Your task to perform on an android device: open app "Duolingo: language lessons" (install if not already installed) Image 0: 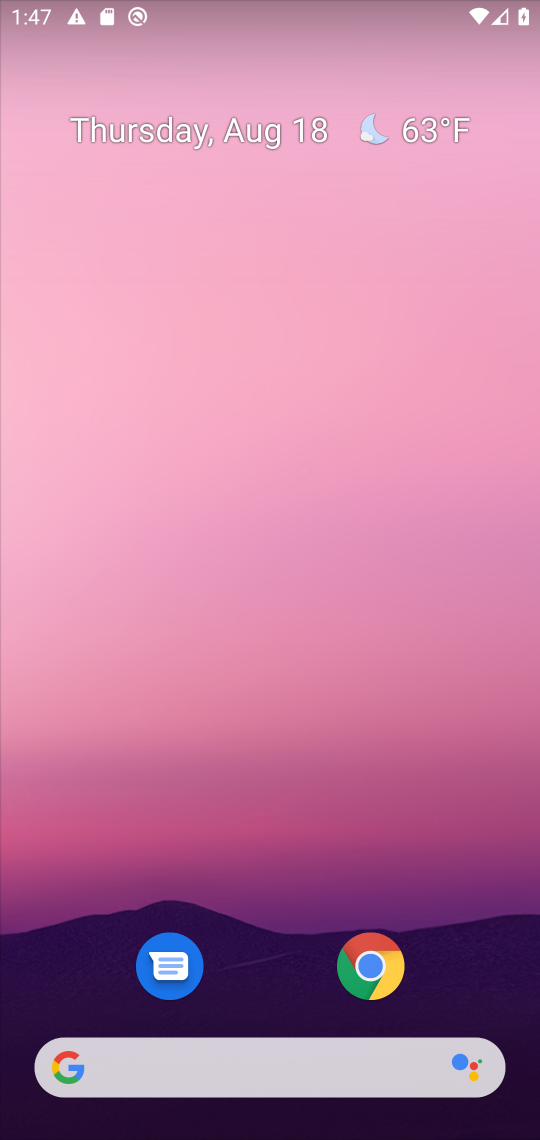
Step 0: drag from (264, 957) to (300, 12)
Your task to perform on an android device: open app "Duolingo: language lessons" (install if not already installed) Image 1: 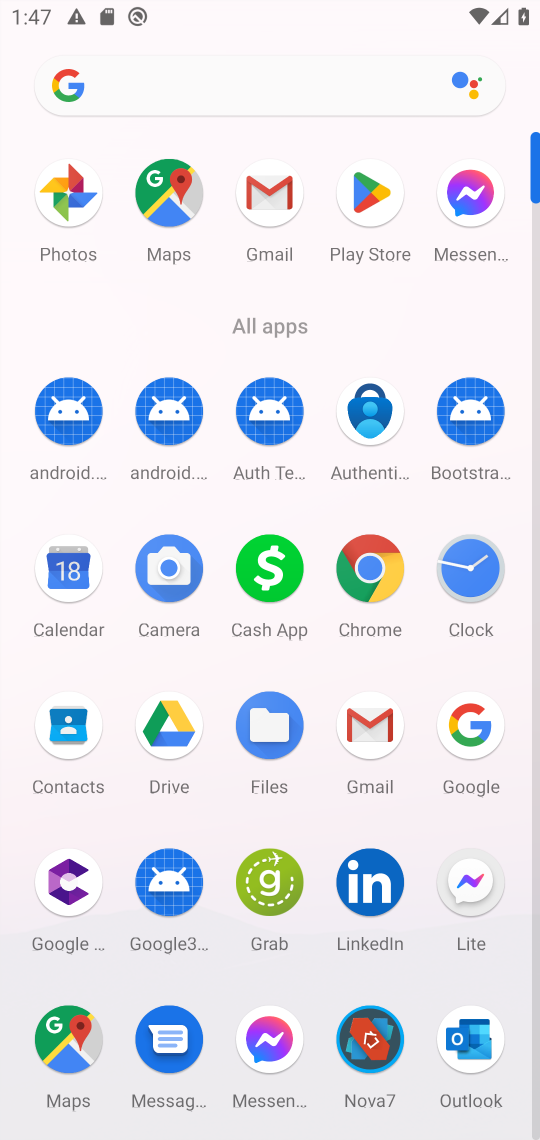
Step 1: click (367, 188)
Your task to perform on an android device: open app "Duolingo: language lessons" (install if not already installed) Image 2: 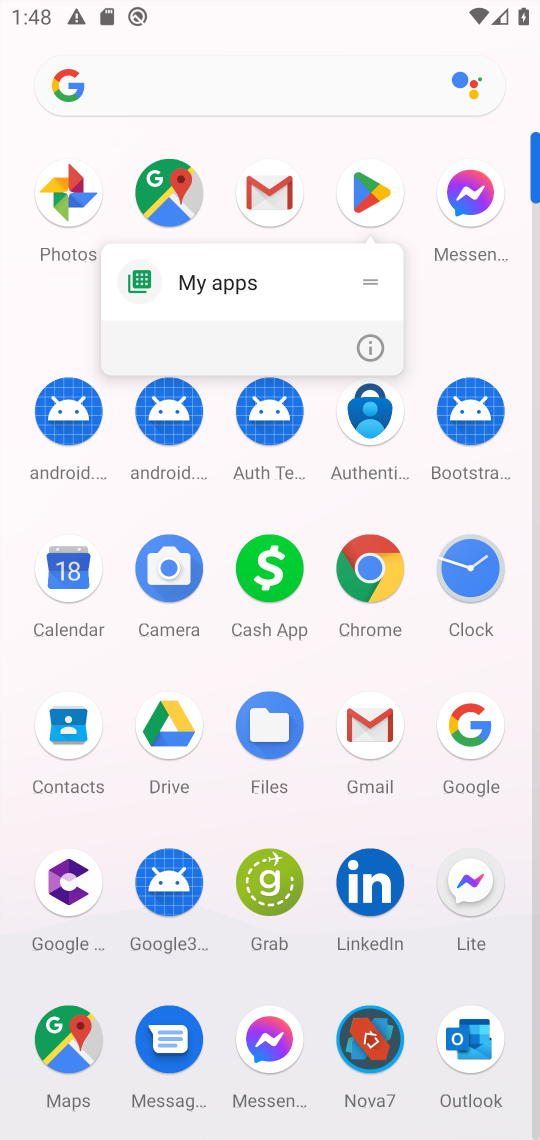
Step 2: click (362, 187)
Your task to perform on an android device: open app "Duolingo: language lessons" (install if not already installed) Image 3: 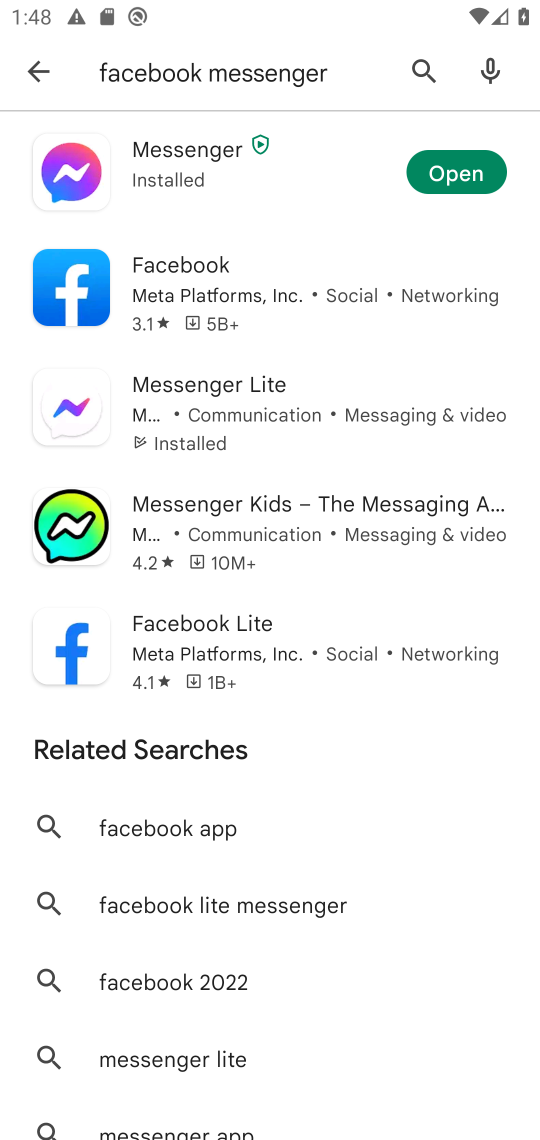
Step 3: click (426, 62)
Your task to perform on an android device: open app "Duolingo: language lessons" (install if not already installed) Image 4: 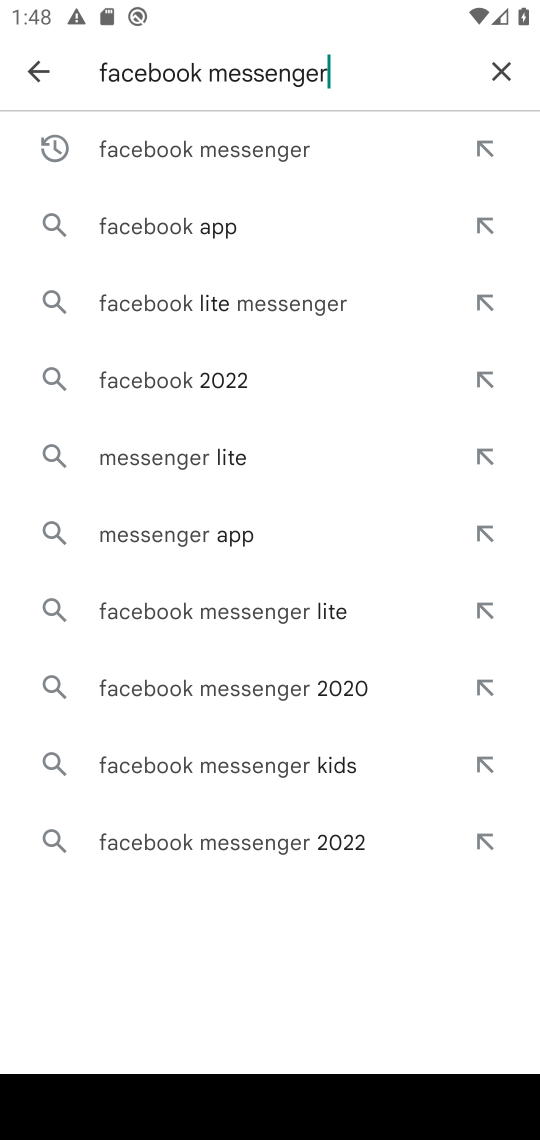
Step 4: click (494, 72)
Your task to perform on an android device: open app "Duolingo: language lessons" (install if not already installed) Image 5: 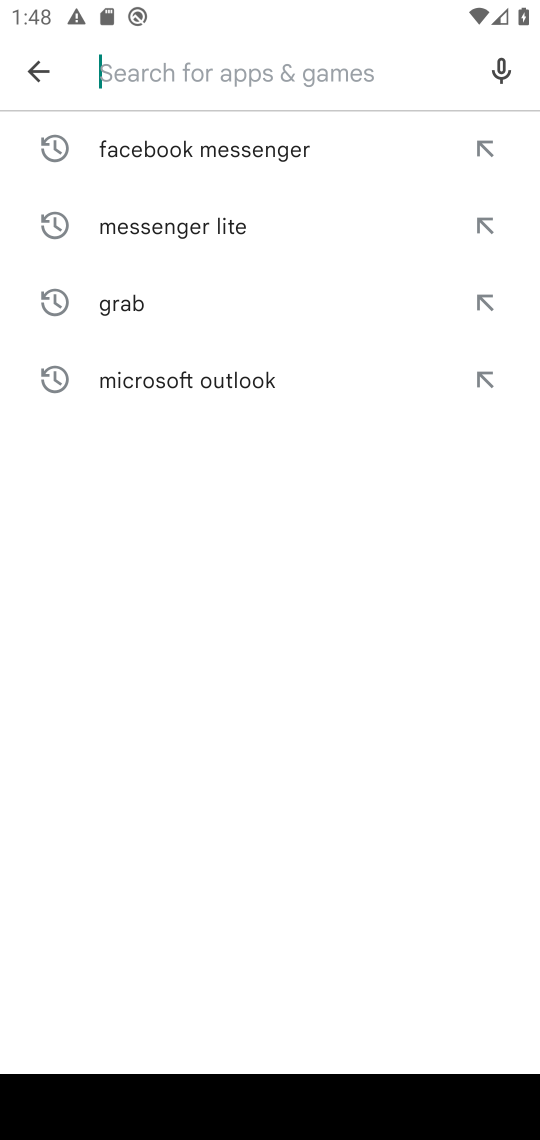
Step 5: type "Duolingo: language lessons"
Your task to perform on an android device: open app "Duolingo: language lessons" (install if not already installed) Image 6: 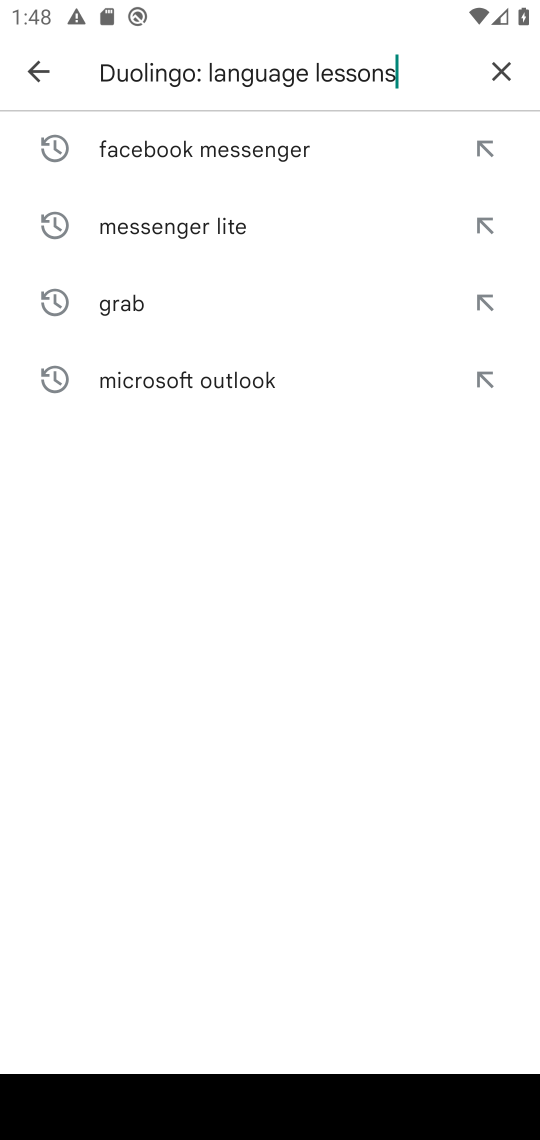
Step 6: type ""
Your task to perform on an android device: open app "Duolingo: language lessons" (install if not already installed) Image 7: 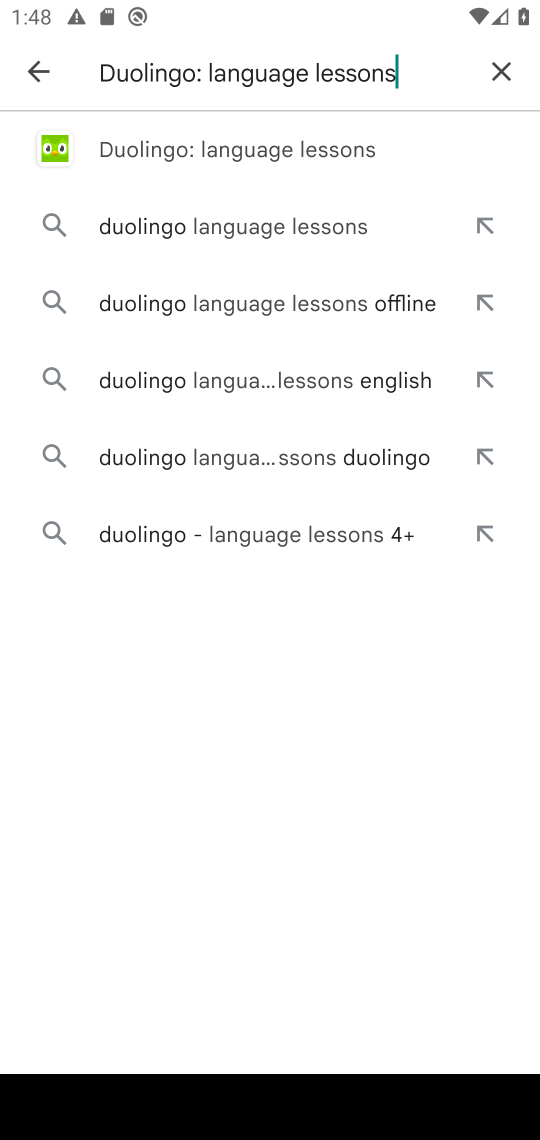
Step 7: click (292, 147)
Your task to perform on an android device: open app "Duolingo: language lessons" (install if not already installed) Image 8: 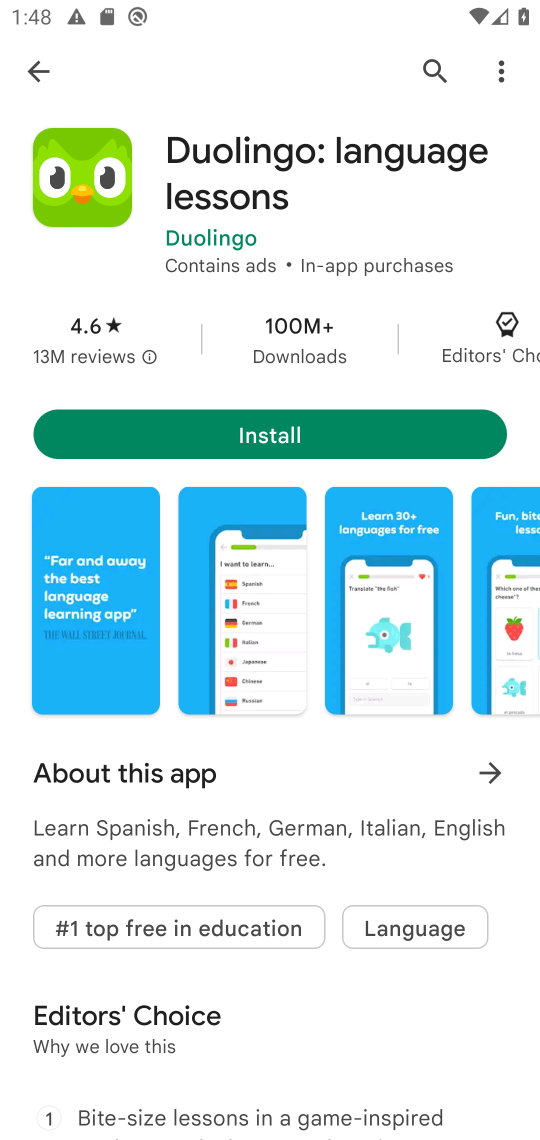
Step 8: click (270, 434)
Your task to perform on an android device: open app "Duolingo: language lessons" (install if not already installed) Image 9: 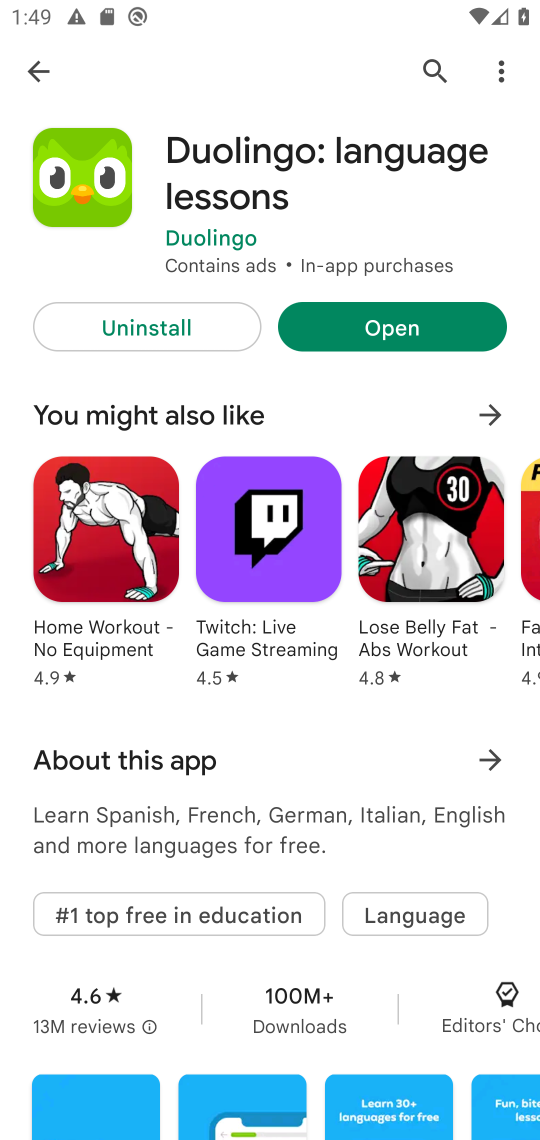
Step 9: click (420, 330)
Your task to perform on an android device: open app "Duolingo: language lessons" (install if not already installed) Image 10: 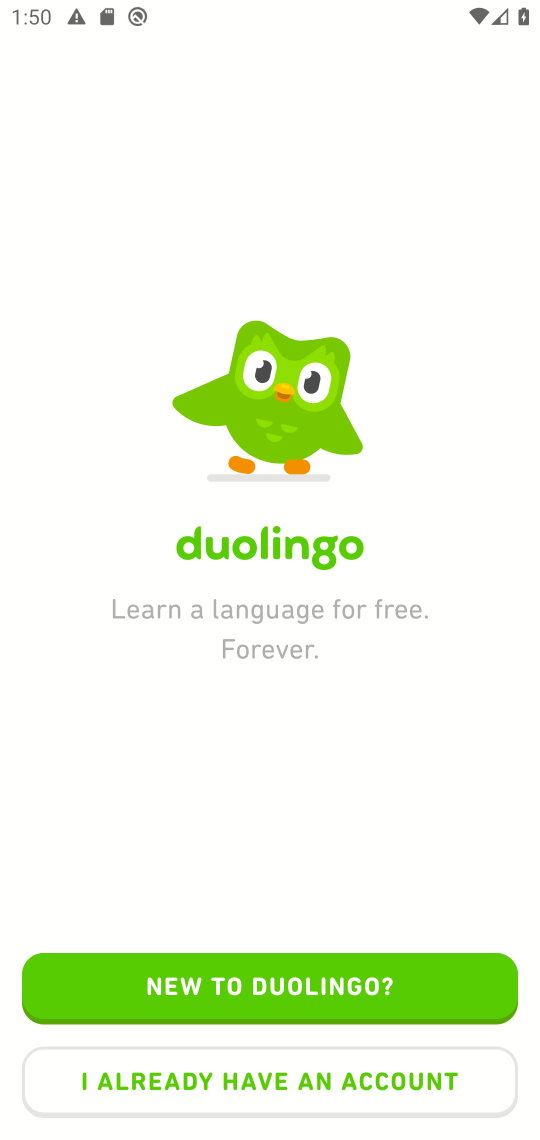
Step 10: task complete